Your task to perform on an android device: change timer sound Image 0: 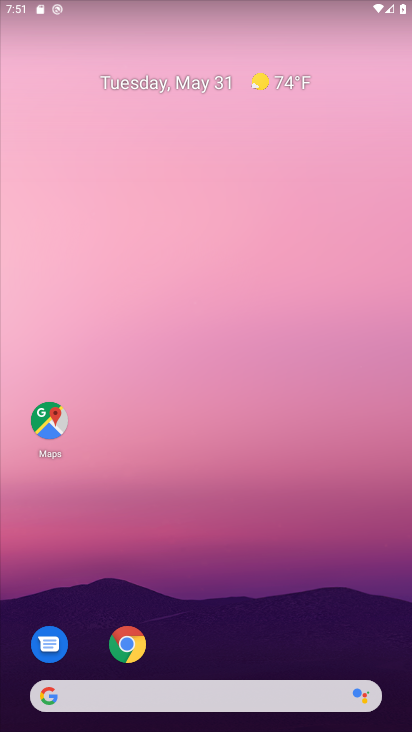
Step 0: drag from (238, 653) to (265, 93)
Your task to perform on an android device: change timer sound Image 1: 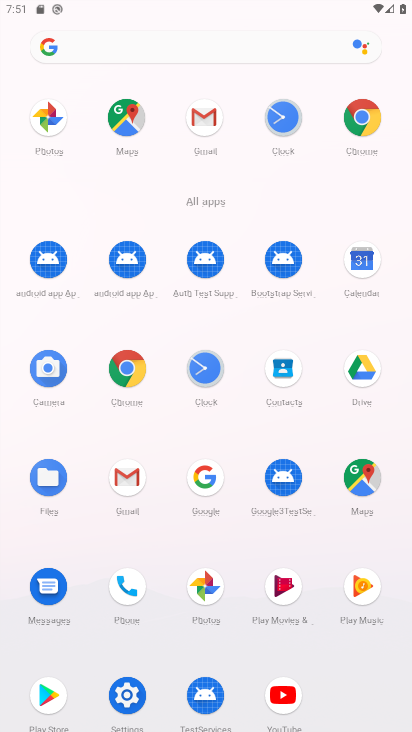
Step 1: click (202, 357)
Your task to perform on an android device: change timer sound Image 2: 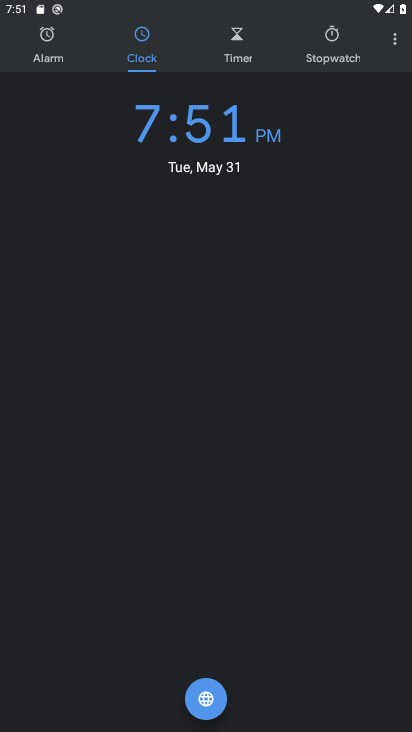
Step 2: click (390, 35)
Your task to perform on an android device: change timer sound Image 3: 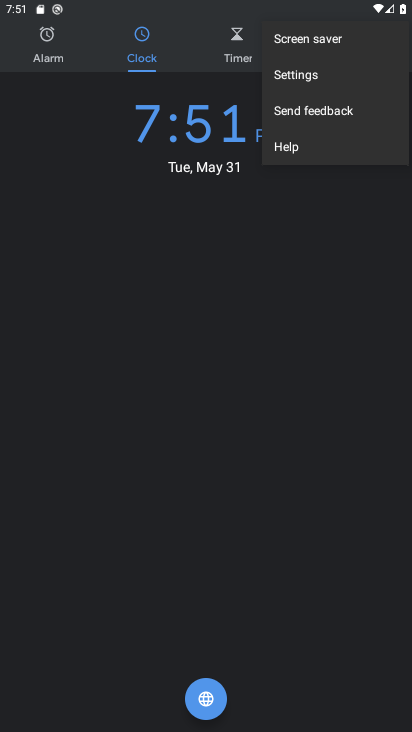
Step 3: click (320, 70)
Your task to perform on an android device: change timer sound Image 4: 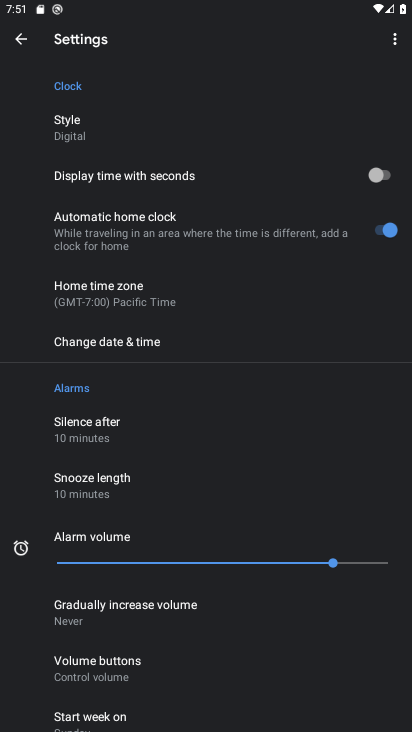
Step 4: drag from (178, 657) to (235, 143)
Your task to perform on an android device: change timer sound Image 5: 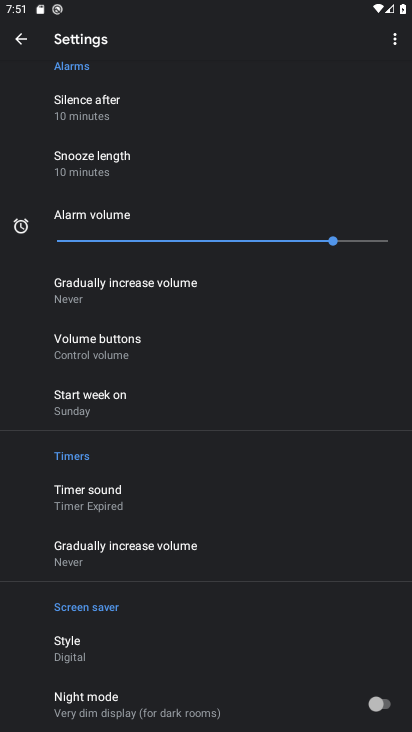
Step 5: click (127, 488)
Your task to perform on an android device: change timer sound Image 6: 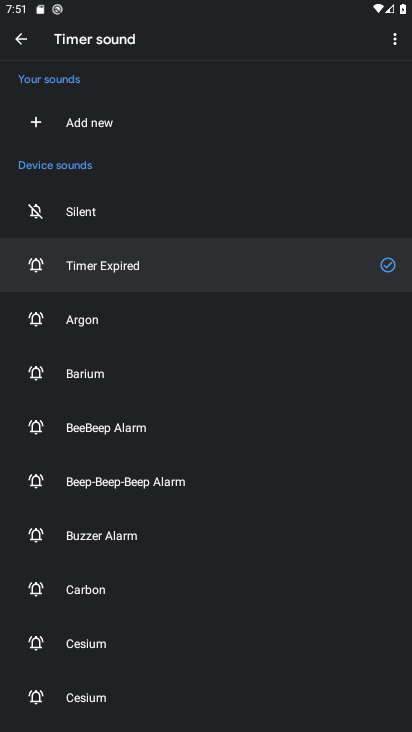
Step 6: click (179, 431)
Your task to perform on an android device: change timer sound Image 7: 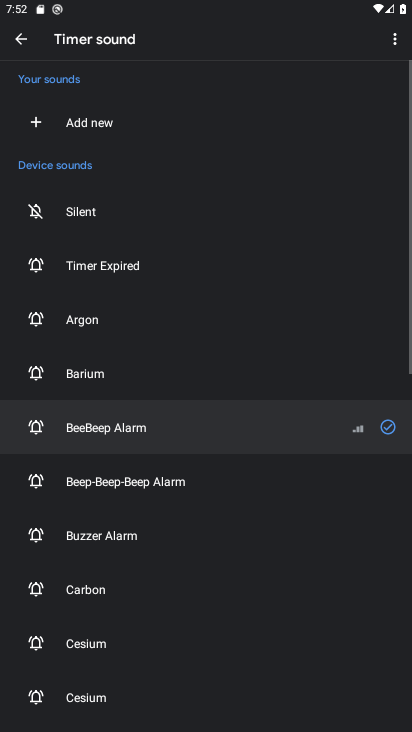
Step 7: task complete